Your task to perform on an android device: open app "Calculator" (install if not already installed) Image 0: 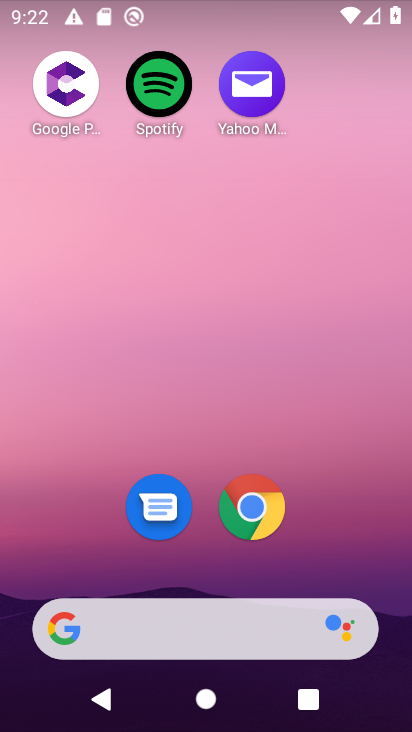
Step 0: drag from (390, 634) to (354, 116)
Your task to perform on an android device: open app "Calculator" (install if not already installed) Image 1: 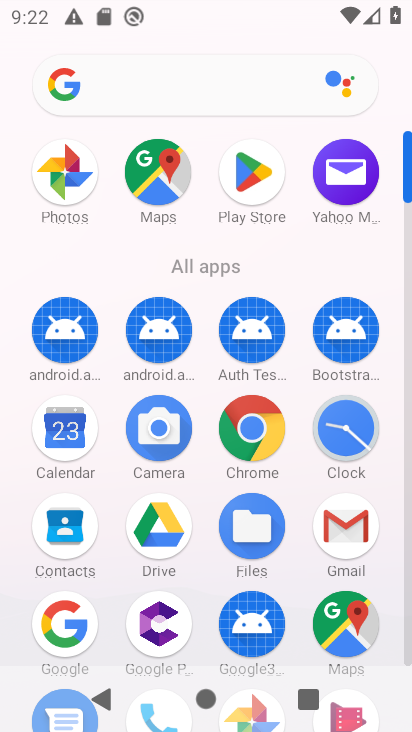
Step 1: click (406, 636)
Your task to perform on an android device: open app "Calculator" (install if not already installed) Image 2: 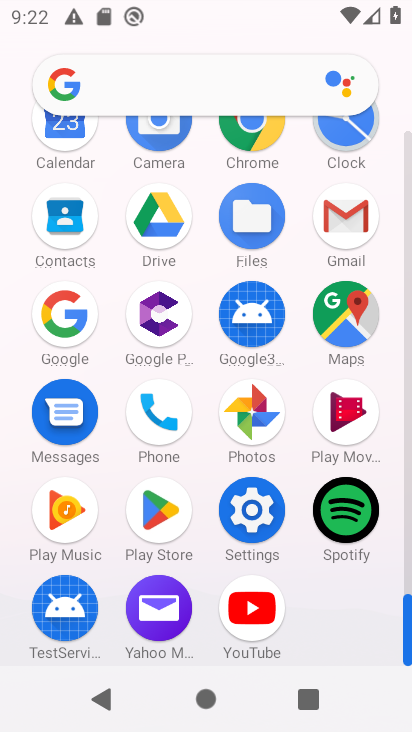
Step 2: click (159, 508)
Your task to perform on an android device: open app "Calculator" (install if not already installed) Image 3: 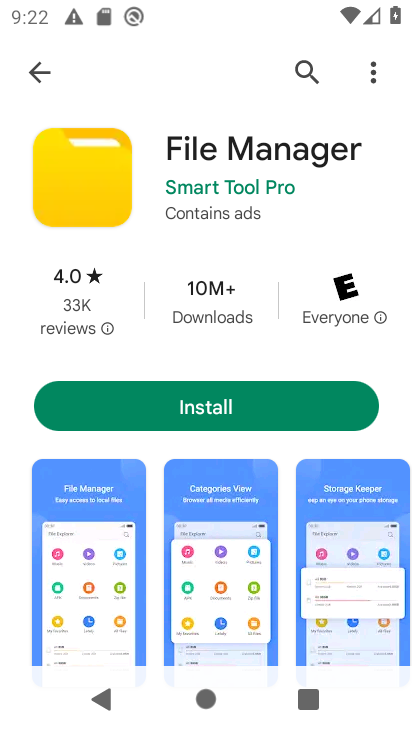
Step 3: click (302, 69)
Your task to perform on an android device: open app "Calculator" (install if not already installed) Image 4: 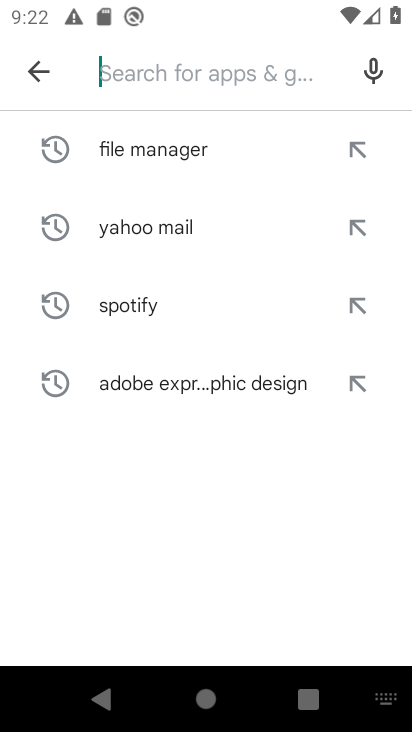
Step 4: type "Calculator"
Your task to perform on an android device: open app "Calculator" (install if not already installed) Image 5: 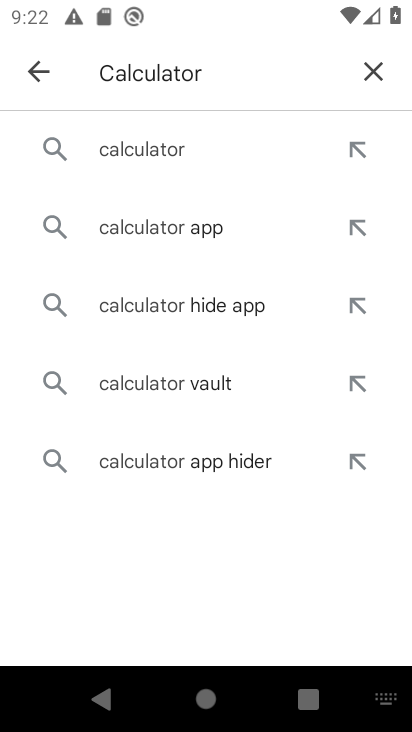
Step 5: click (137, 137)
Your task to perform on an android device: open app "Calculator" (install if not already installed) Image 6: 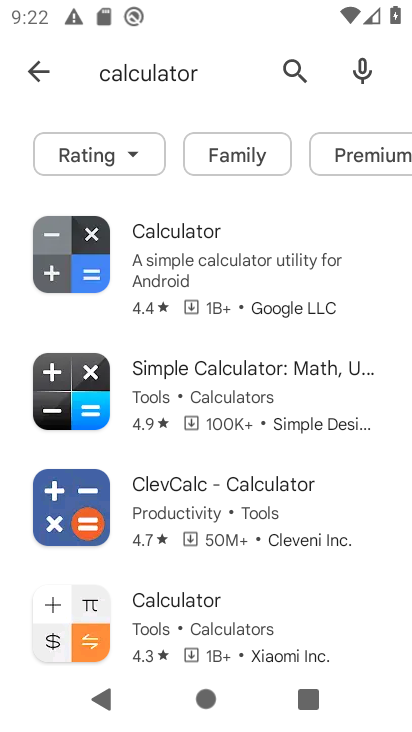
Step 6: click (171, 234)
Your task to perform on an android device: open app "Calculator" (install if not already installed) Image 7: 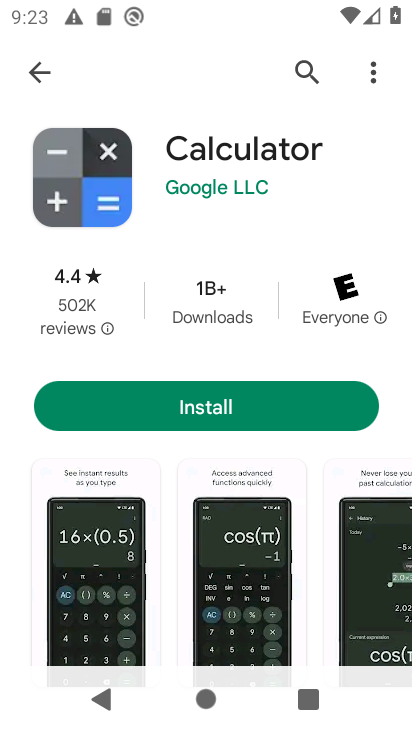
Step 7: click (207, 409)
Your task to perform on an android device: open app "Calculator" (install if not already installed) Image 8: 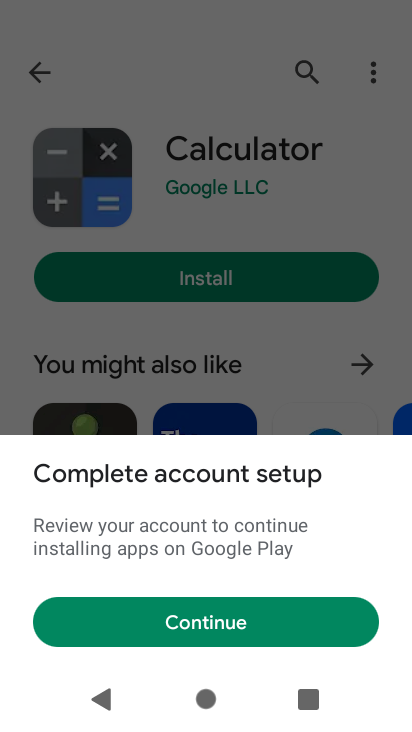
Step 8: click (205, 619)
Your task to perform on an android device: open app "Calculator" (install if not already installed) Image 9: 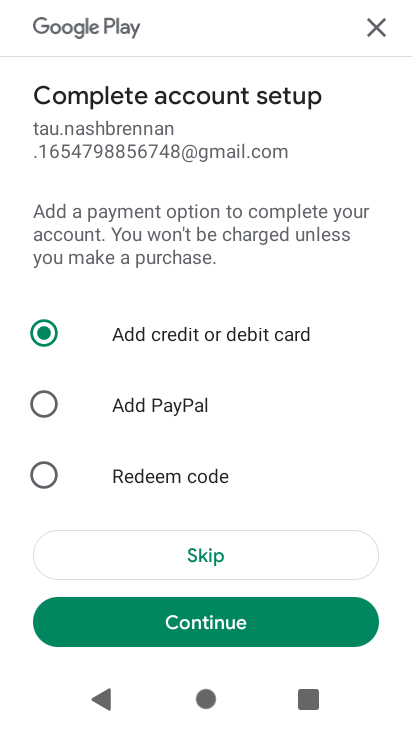
Step 9: click (201, 543)
Your task to perform on an android device: open app "Calculator" (install if not already installed) Image 10: 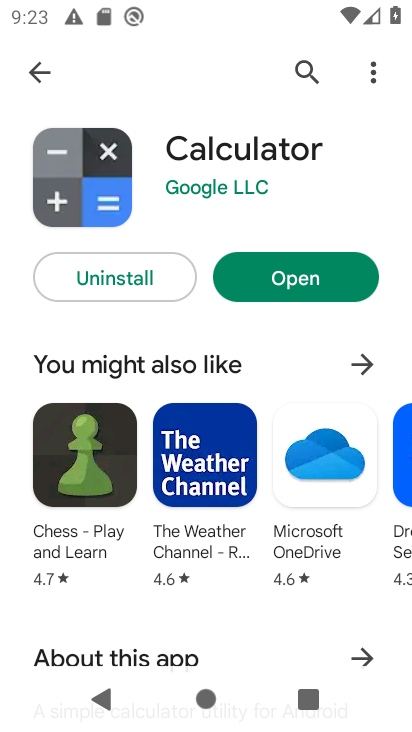
Step 10: click (289, 273)
Your task to perform on an android device: open app "Calculator" (install if not already installed) Image 11: 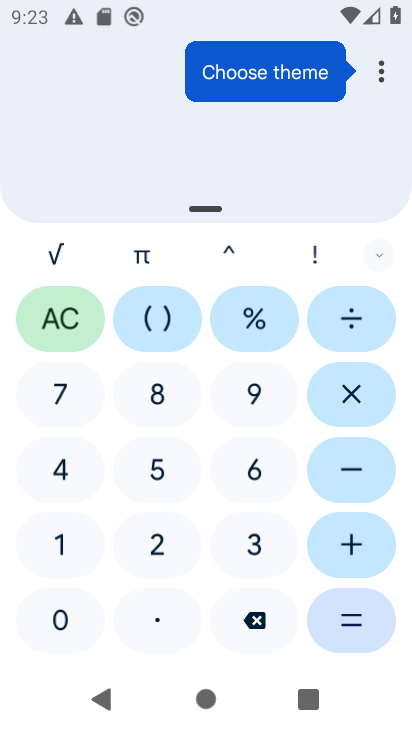
Step 11: task complete